Your task to perform on an android device: Open Google Chrome and click the shortcut for Amazon.com Image 0: 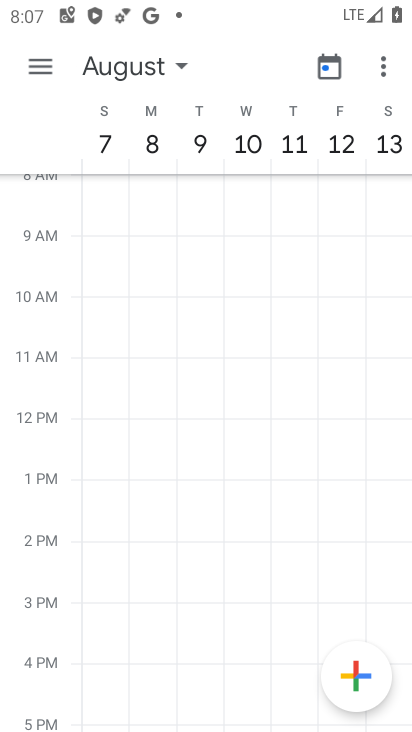
Step 0: press home button
Your task to perform on an android device: Open Google Chrome and click the shortcut for Amazon.com Image 1: 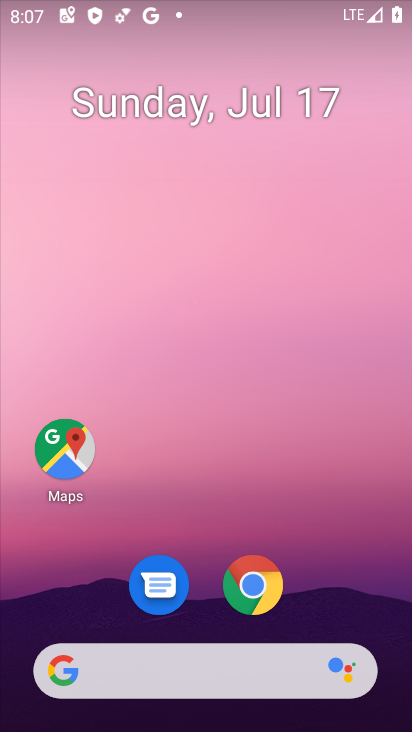
Step 1: click (263, 581)
Your task to perform on an android device: Open Google Chrome and click the shortcut for Amazon.com Image 2: 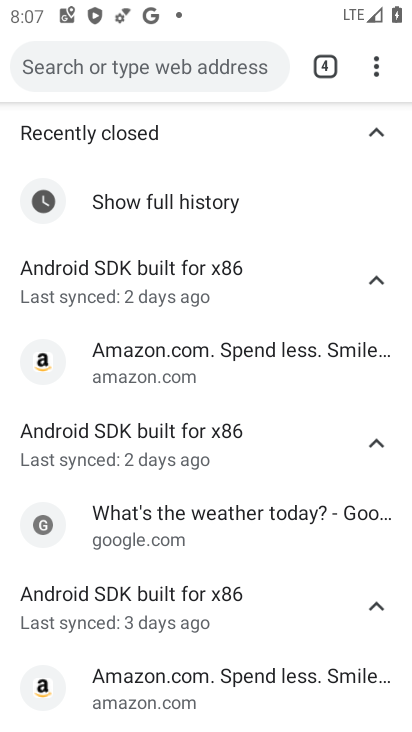
Step 2: click (380, 71)
Your task to perform on an android device: Open Google Chrome and click the shortcut for Amazon.com Image 3: 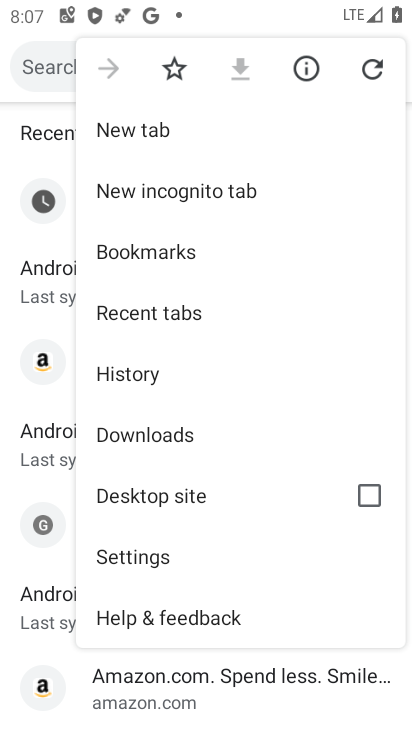
Step 3: click (215, 141)
Your task to perform on an android device: Open Google Chrome and click the shortcut for Amazon.com Image 4: 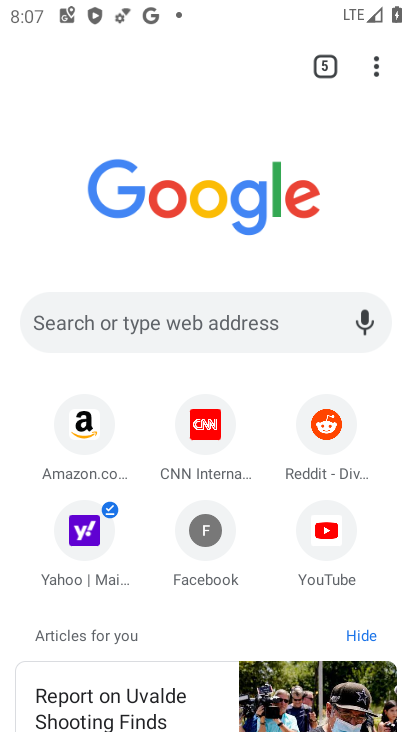
Step 4: click (90, 426)
Your task to perform on an android device: Open Google Chrome and click the shortcut for Amazon.com Image 5: 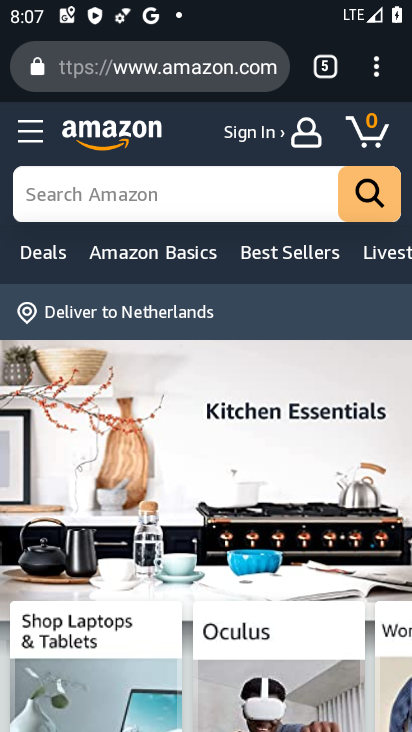
Step 5: task complete